Your task to perform on an android device: Go to calendar. Show me events next week Image 0: 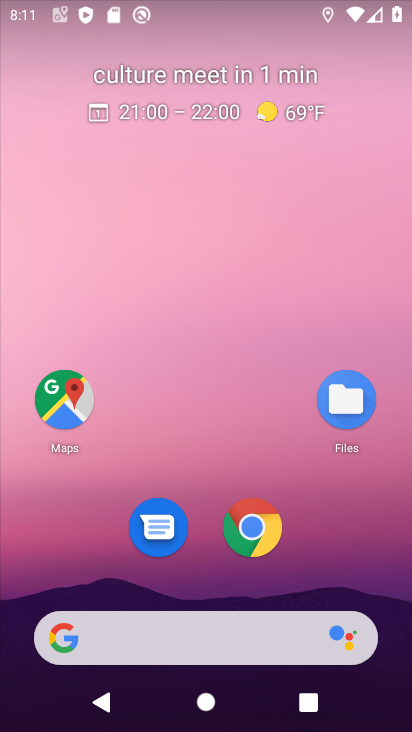
Step 0: drag from (298, 574) to (310, 71)
Your task to perform on an android device: Go to calendar. Show me events next week Image 1: 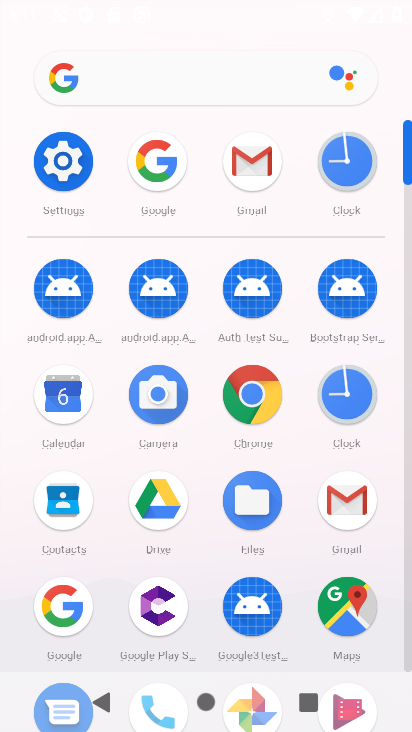
Step 1: click (58, 390)
Your task to perform on an android device: Go to calendar. Show me events next week Image 2: 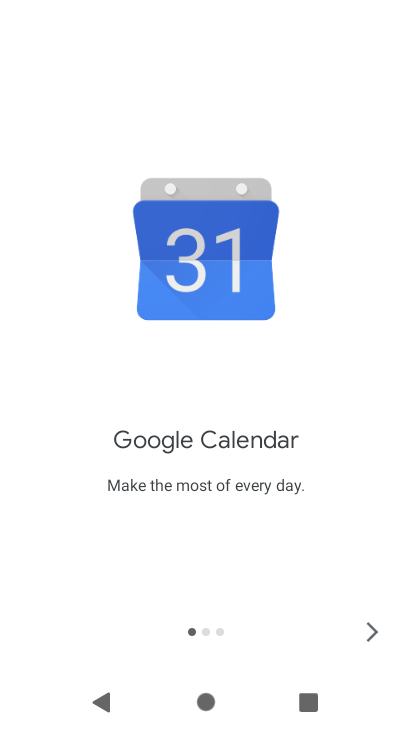
Step 2: click (375, 636)
Your task to perform on an android device: Go to calendar. Show me events next week Image 3: 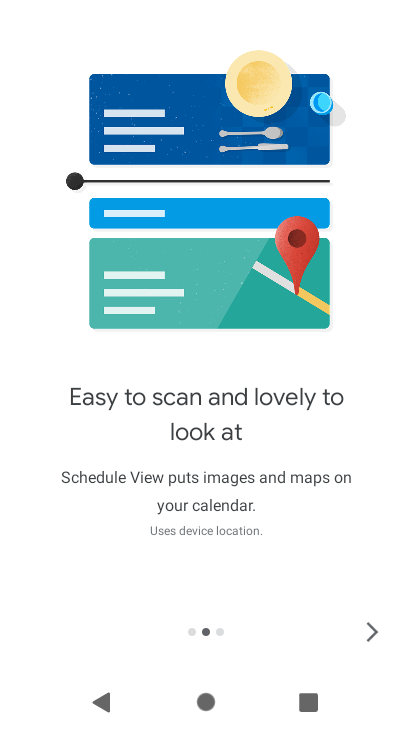
Step 3: click (375, 637)
Your task to perform on an android device: Go to calendar. Show me events next week Image 4: 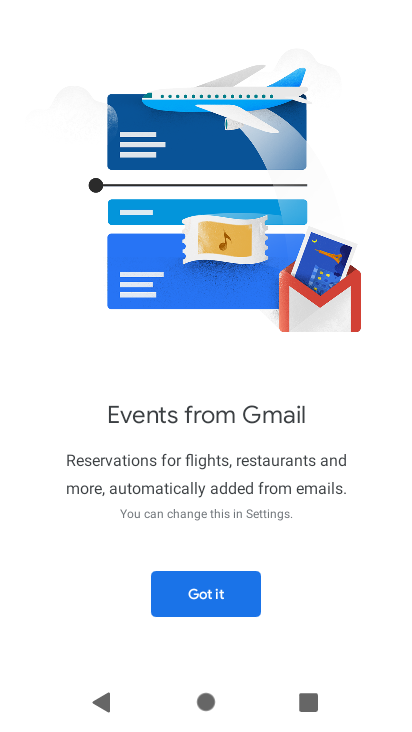
Step 4: click (195, 592)
Your task to perform on an android device: Go to calendar. Show me events next week Image 5: 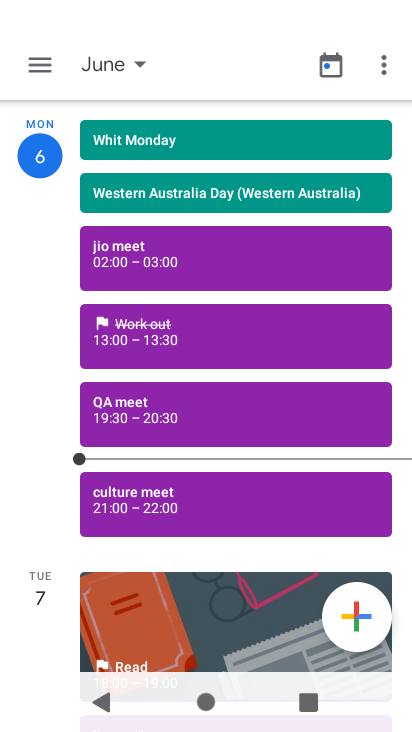
Step 5: click (127, 68)
Your task to perform on an android device: Go to calendar. Show me events next week Image 6: 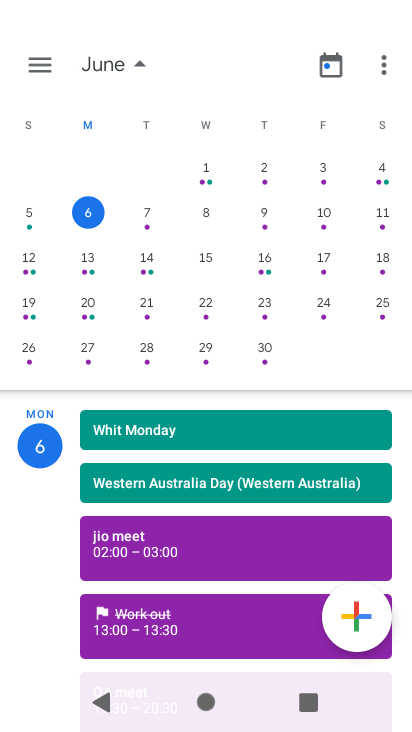
Step 6: click (214, 218)
Your task to perform on an android device: Go to calendar. Show me events next week Image 7: 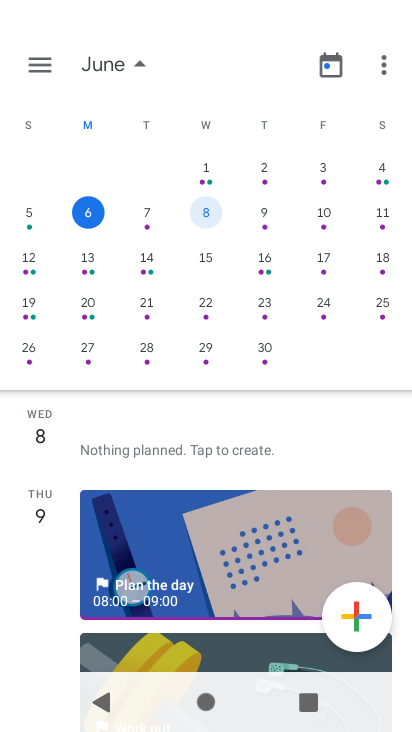
Step 7: task complete